Your task to perform on an android device: check google app version Image 0: 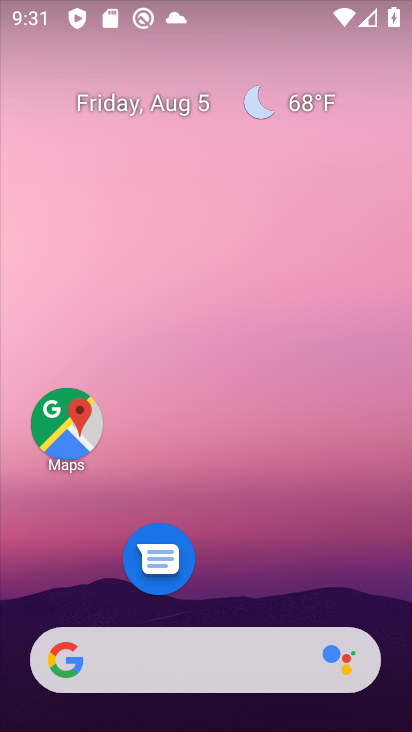
Step 0: drag from (308, 646) to (356, 43)
Your task to perform on an android device: check google app version Image 1: 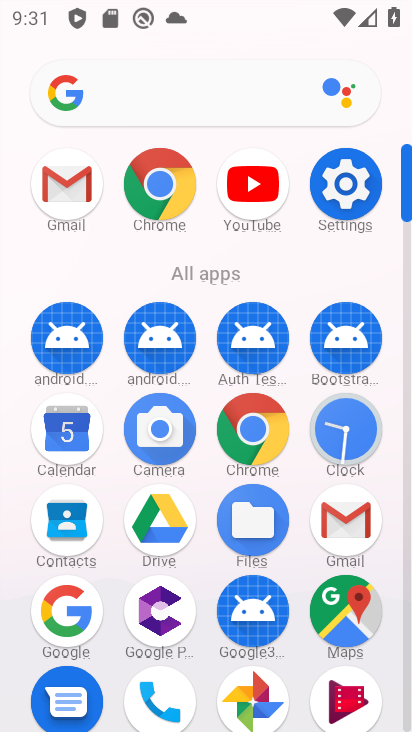
Step 1: click (78, 623)
Your task to perform on an android device: check google app version Image 2: 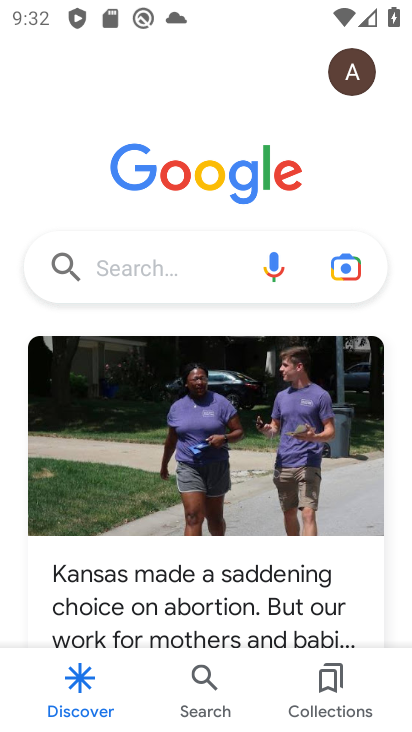
Step 2: click (354, 82)
Your task to perform on an android device: check google app version Image 3: 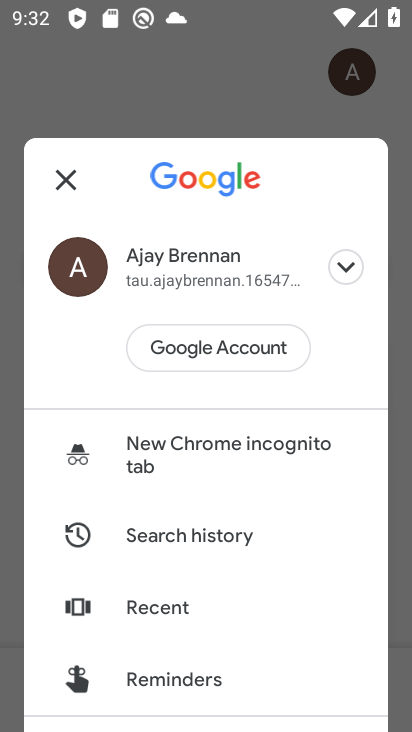
Step 3: drag from (207, 536) to (253, 230)
Your task to perform on an android device: check google app version Image 4: 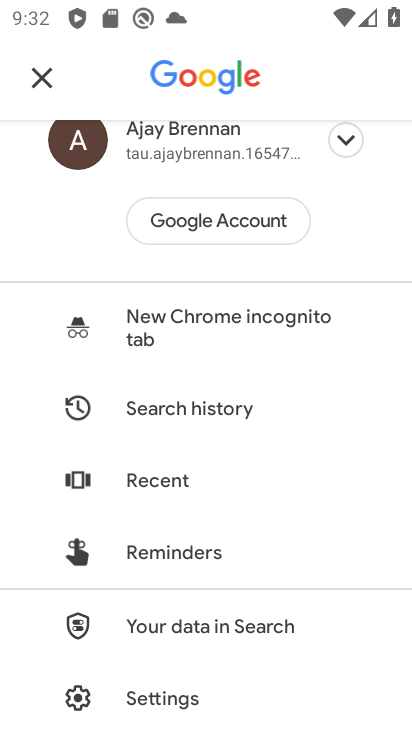
Step 4: drag from (176, 621) to (226, 241)
Your task to perform on an android device: check google app version Image 5: 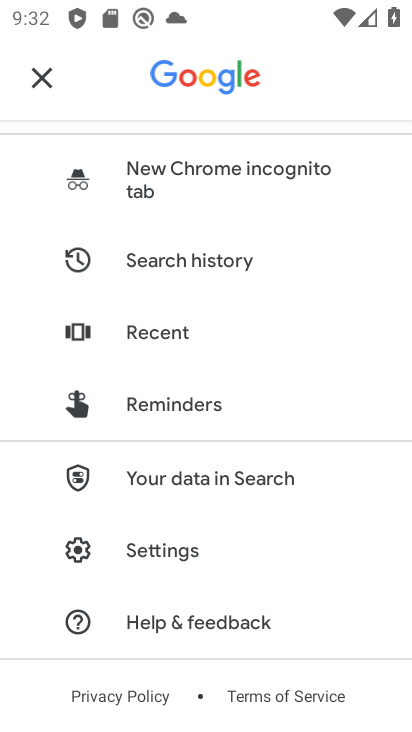
Step 5: click (177, 549)
Your task to perform on an android device: check google app version Image 6: 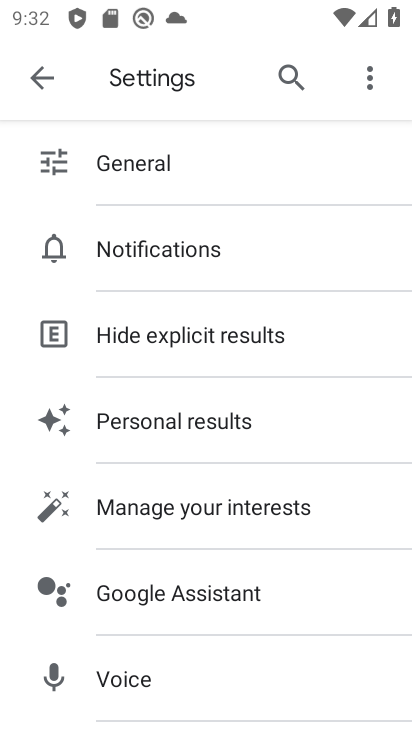
Step 6: drag from (155, 613) to (223, 191)
Your task to perform on an android device: check google app version Image 7: 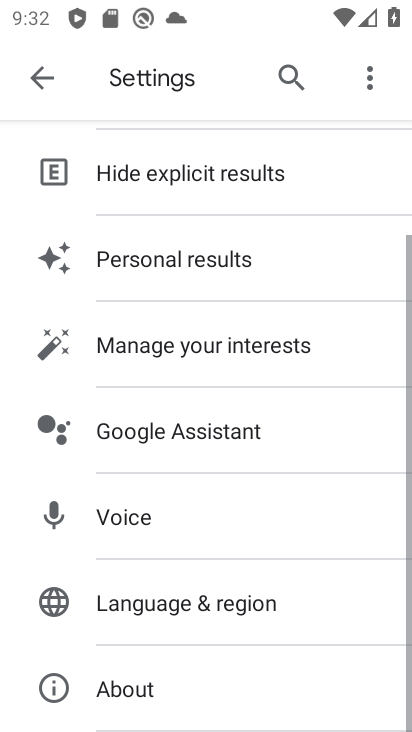
Step 7: click (162, 710)
Your task to perform on an android device: check google app version Image 8: 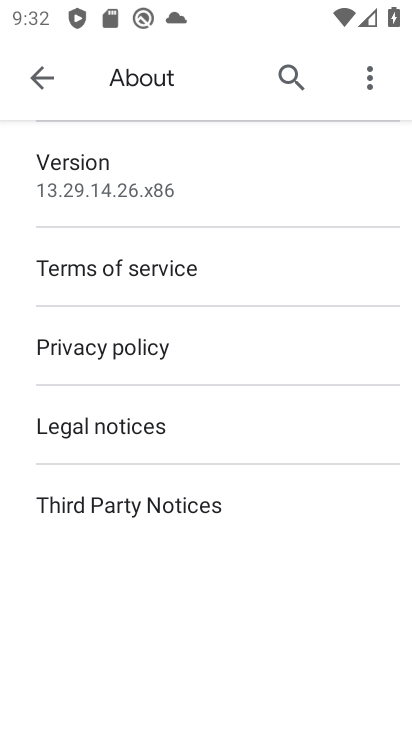
Step 8: click (162, 192)
Your task to perform on an android device: check google app version Image 9: 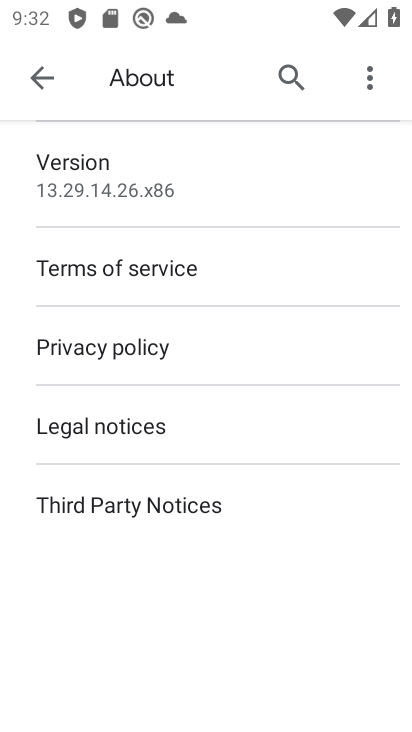
Step 9: task complete